Your task to perform on an android device: create a new album in the google photos Image 0: 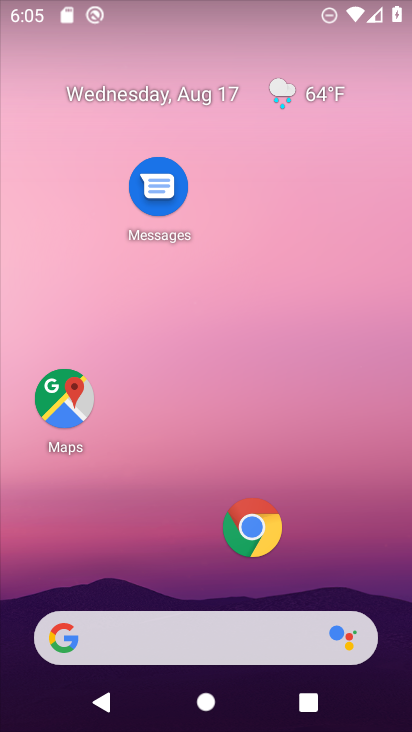
Step 0: drag from (164, 596) to (161, 242)
Your task to perform on an android device: create a new album in the google photos Image 1: 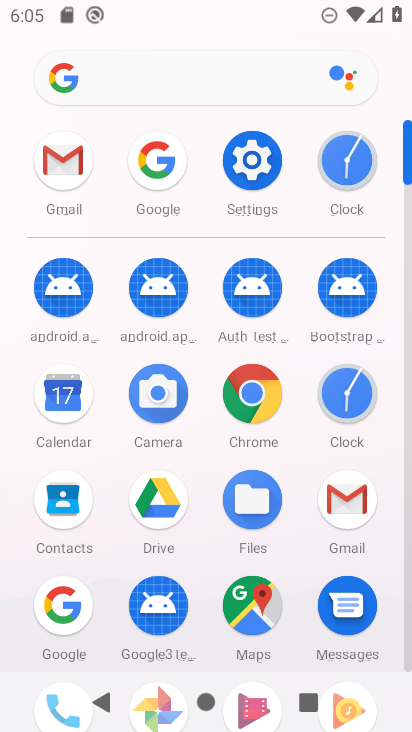
Step 1: drag from (116, 638) to (95, 281)
Your task to perform on an android device: create a new album in the google photos Image 2: 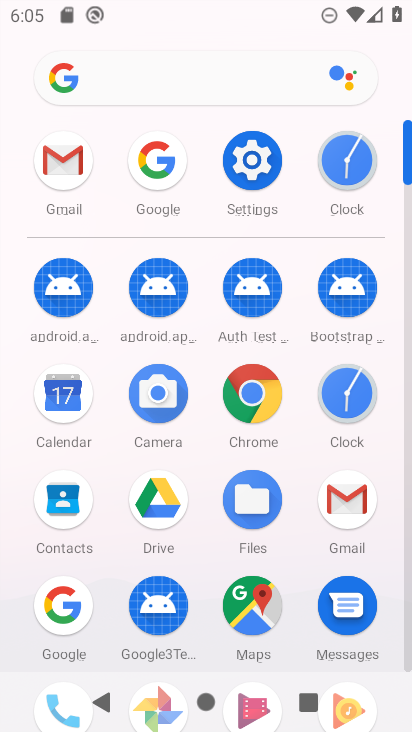
Step 2: drag from (206, 641) to (192, 344)
Your task to perform on an android device: create a new album in the google photos Image 3: 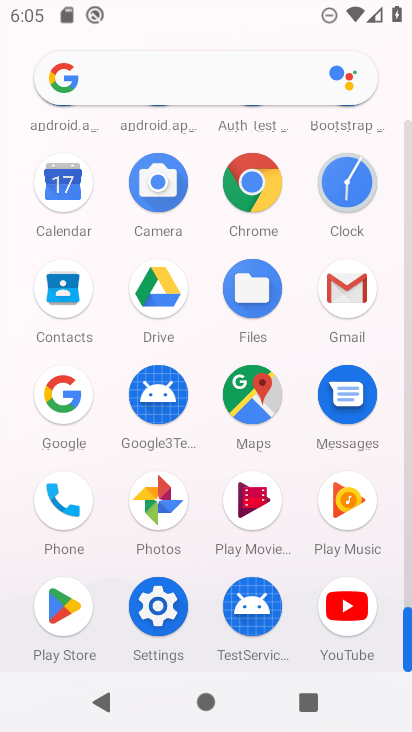
Step 3: click (152, 507)
Your task to perform on an android device: create a new album in the google photos Image 4: 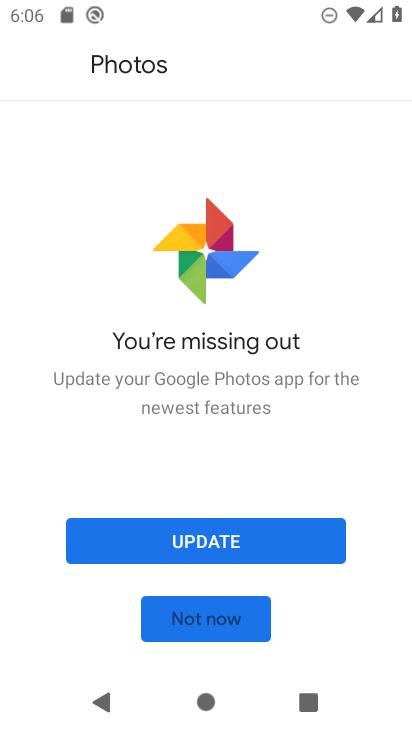
Step 4: click (186, 613)
Your task to perform on an android device: create a new album in the google photos Image 5: 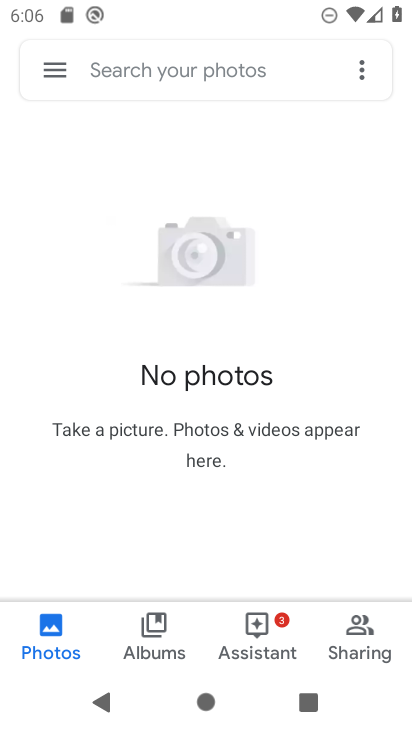
Step 5: task complete